Your task to perform on an android device: Open Google Image 0: 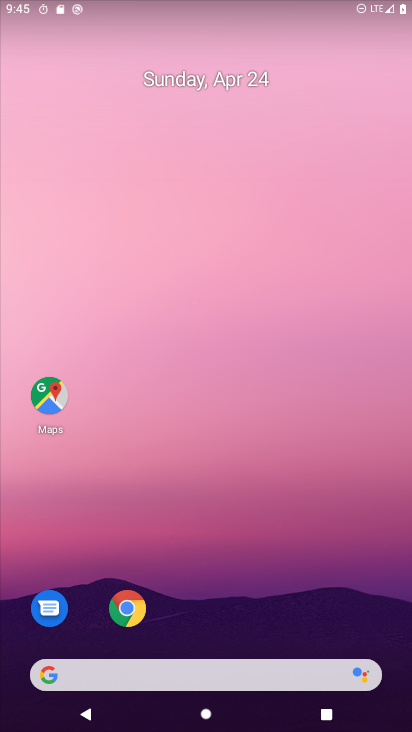
Step 0: click (64, 669)
Your task to perform on an android device: Open Google Image 1: 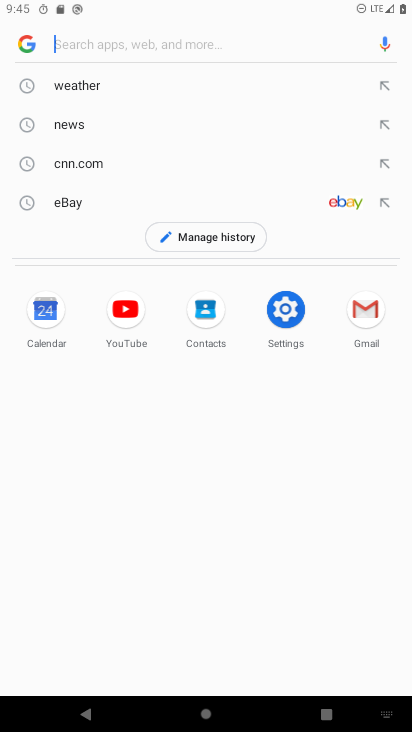
Step 1: click (29, 44)
Your task to perform on an android device: Open Google Image 2: 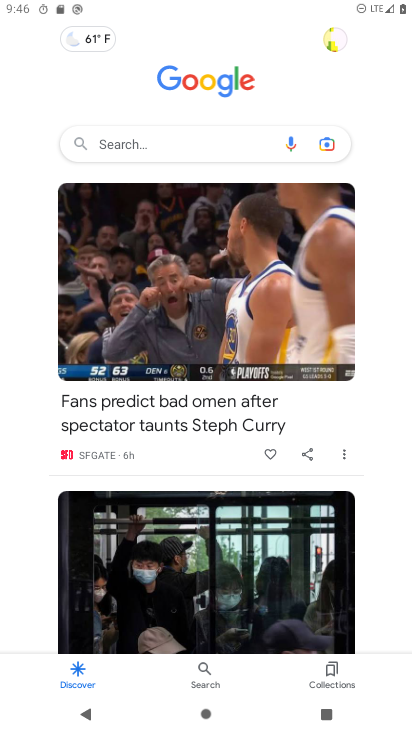
Step 2: task complete